Your task to perform on an android device: show emergency info Image 0: 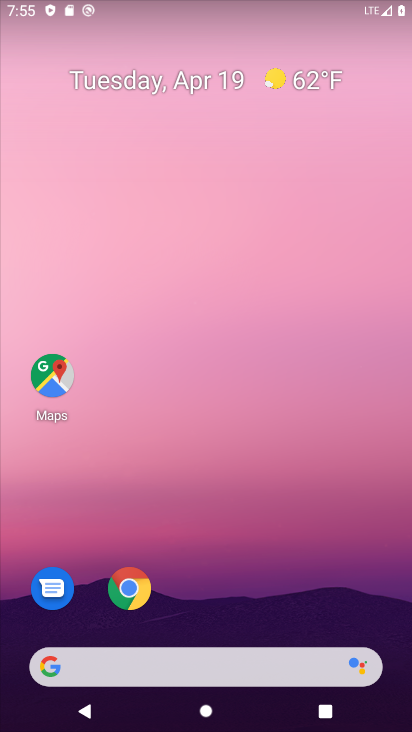
Step 0: drag from (197, 526) to (234, 2)
Your task to perform on an android device: show emergency info Image 1: 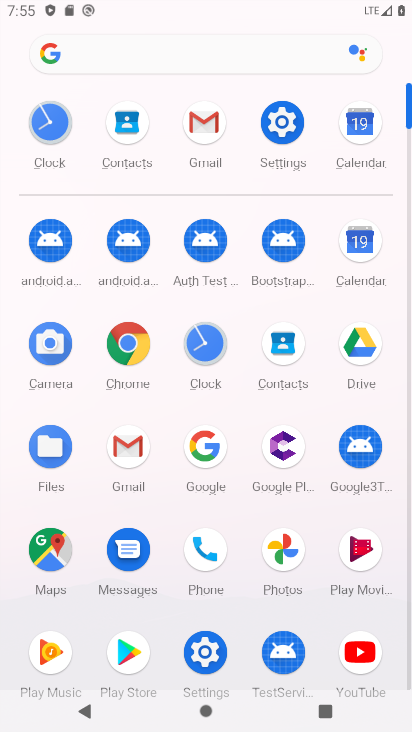
Step 1: click (286, 124)
Your task to perform on an android device: show emergency info Image 2: 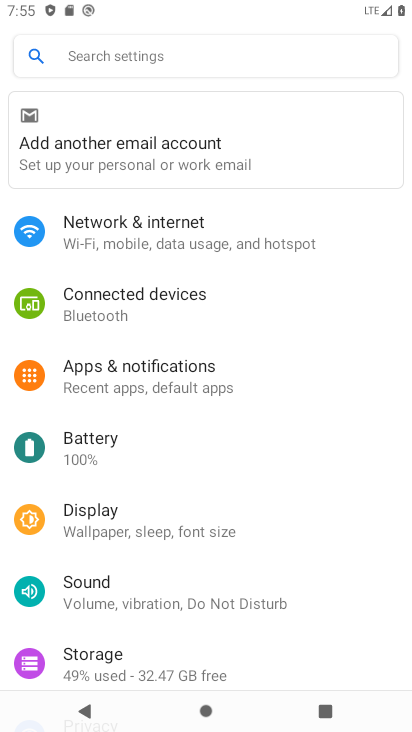
Step 2: drag from (190, 638) to (267, 126)
Your task to perform on an android device: show emergency info Image 3: 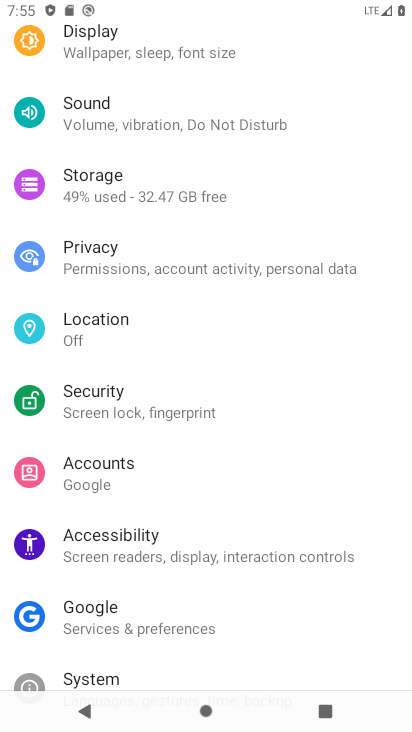
Step 3: drag from (225, 669) to (243, 100)
Your task to perform on an android device: show emergency info Image 4: 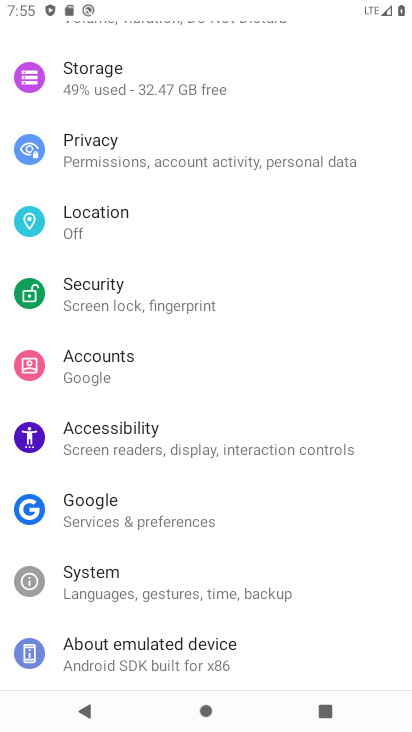
Step 4: click (141, 654)
Your task to perform on an android device: show emergency info Image 5: 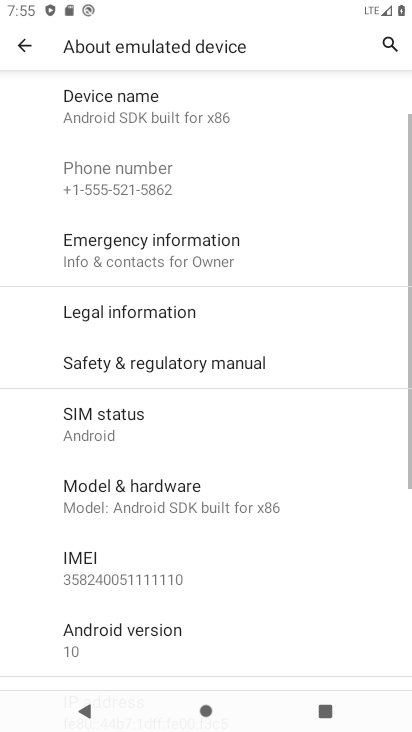
Step 5: click (152, 241)
Your task to perform on an android device: show emergency info Image 6: 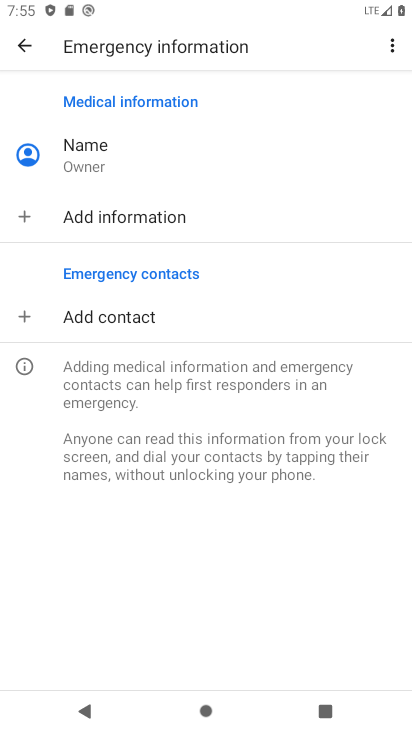
Step 6: task complete